Your task to perform on an android device: See recent photos Image 0: 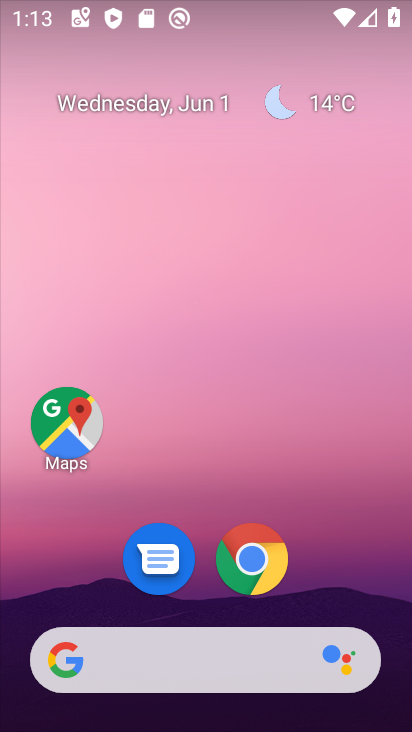
Step 0: drag from (403, 703) to (287, 203)
Your task to perform on an android device: See recent photos Image 1: 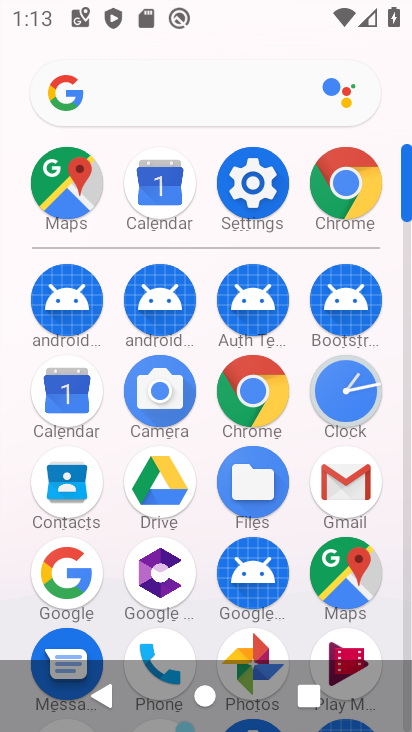
Step 1: click (248, 642)
Your task to perform on an android device: See recent photos Image 2: 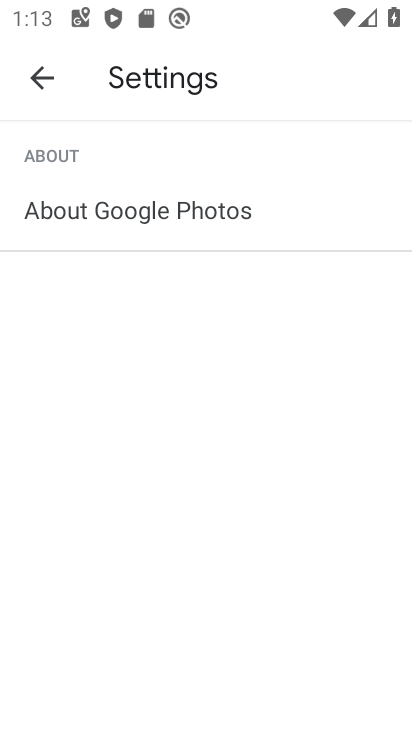
Step 2: click (30, 84)
Your task to perform on an android device: See recent photos Image 3: 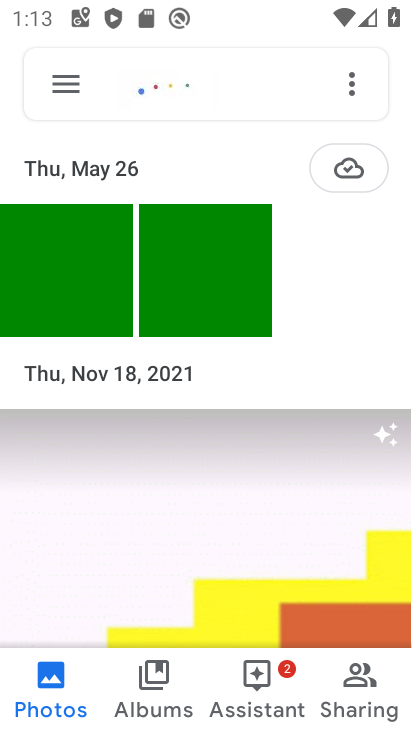
Step 3: drag from (152, 576) to (167, 332)
Your task to perform on an android device: See recent photos Image 4: 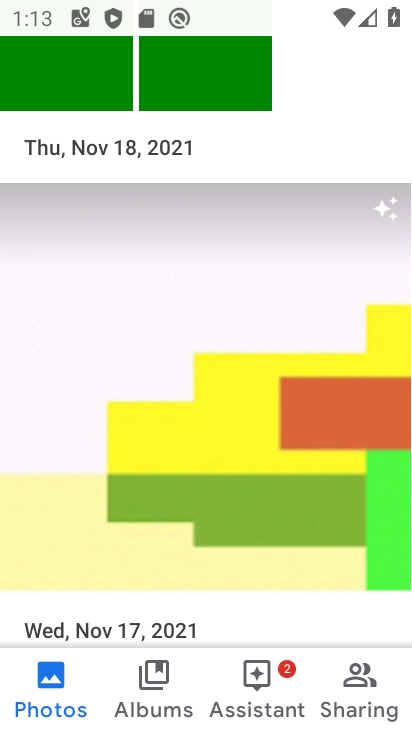
Step 4: drag from (94, 582) to (106, 206)
Your task to perform on an android device: See recent photos Image 5: 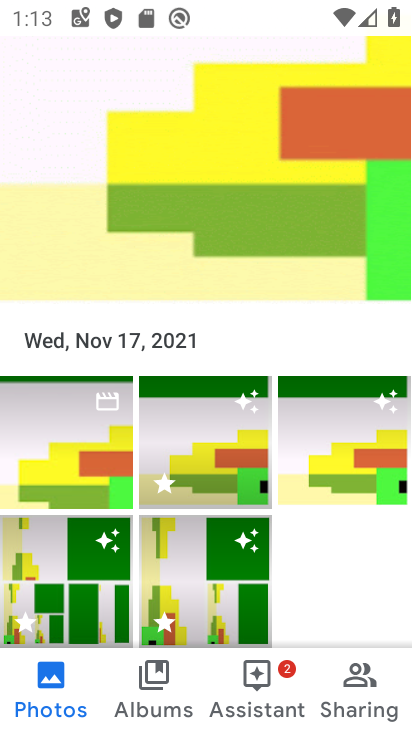
Step 5: click (85, 437)
Your task to perform on an android device: See recent photos Image 6: 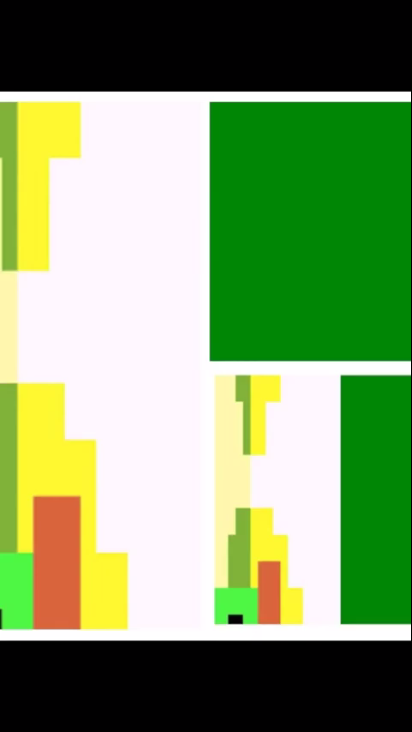
Step 6: click (29, 62)
Your task to perform on an android device: See recent photos Image 7: 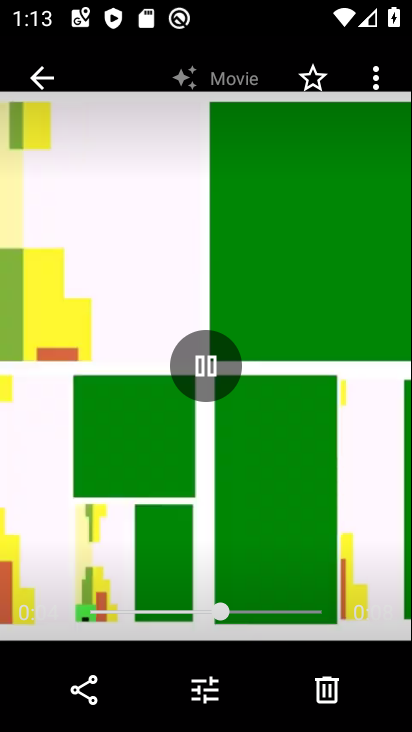
Step 7: click (27, 82)
Your task to perform on an android device: See recent photos Image 8: 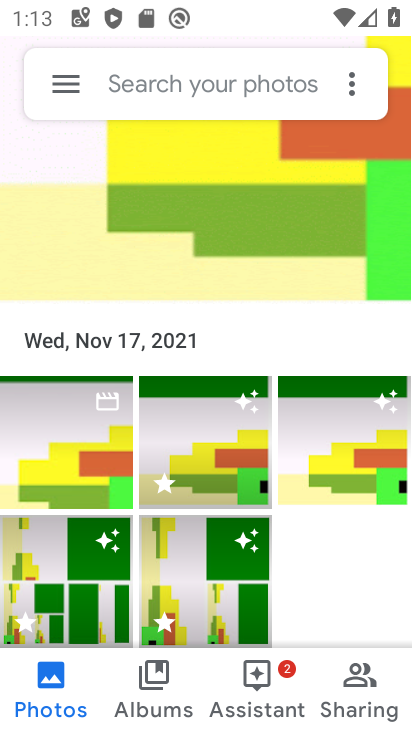
Step 8: click (247, 457)
Your task to perform on an android device: See recent photos Image 9: 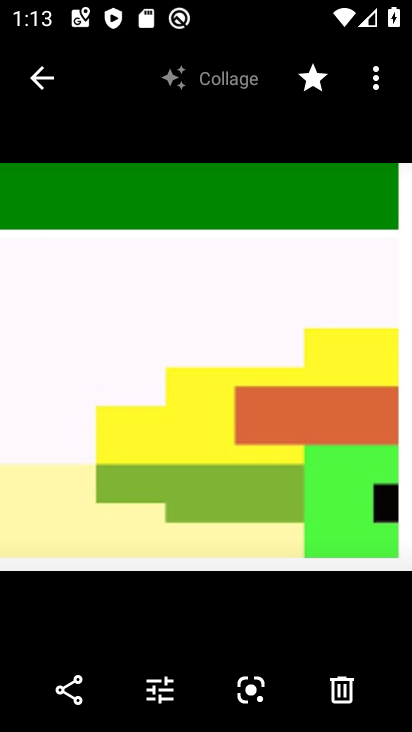
Step 9: click (388, 284)
Your task to perform on an android device: See recent photos Image 10: 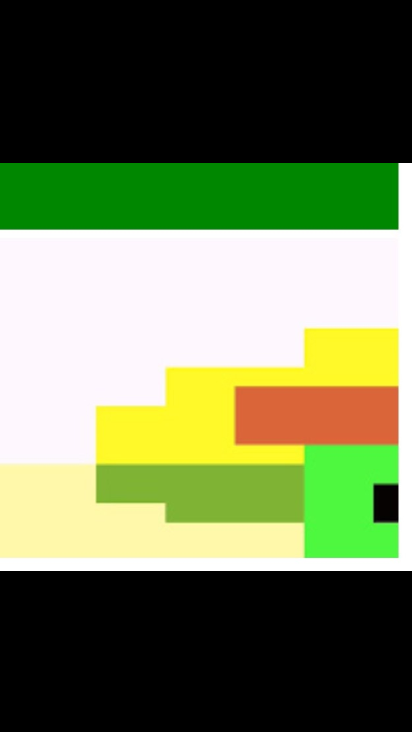
Step 10: click (398, 267)
Your task to perform on an android device: See recent photos Image 11: 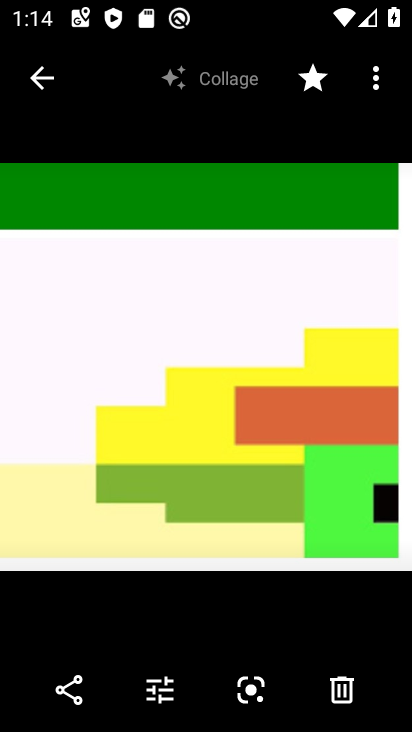
Step 11: task complete